Your task to perform on an android device: Go to CNN.com Image 0: 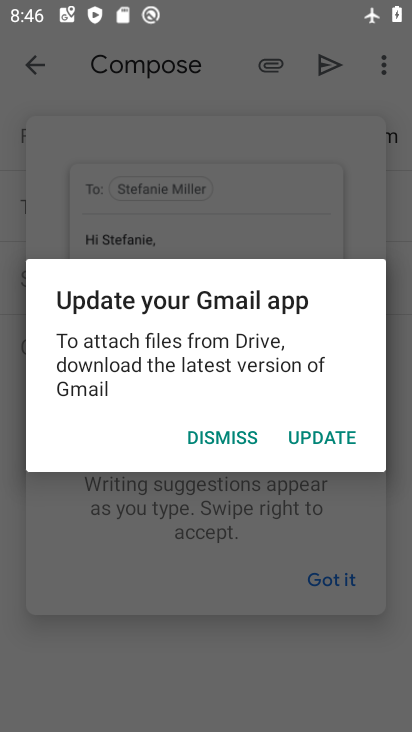
Step 0: press home button
Your task to perform on an android device: Go to CNN.com Image 1: 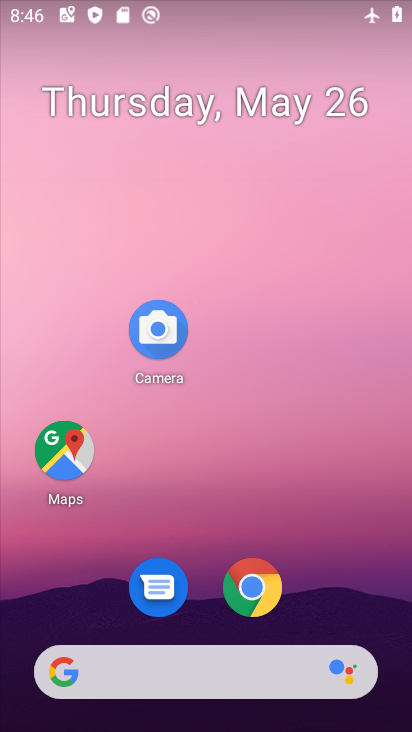
Step 1: click (256, 565)
Your task to perform on an android device: Go to CNN.com Image 2: 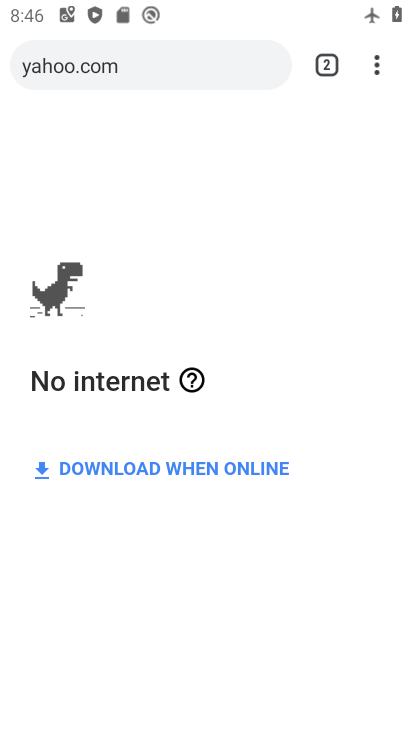
Step 2: task complete